Your task to perform on an android device: move a message to another label in the gmail app Image 0: 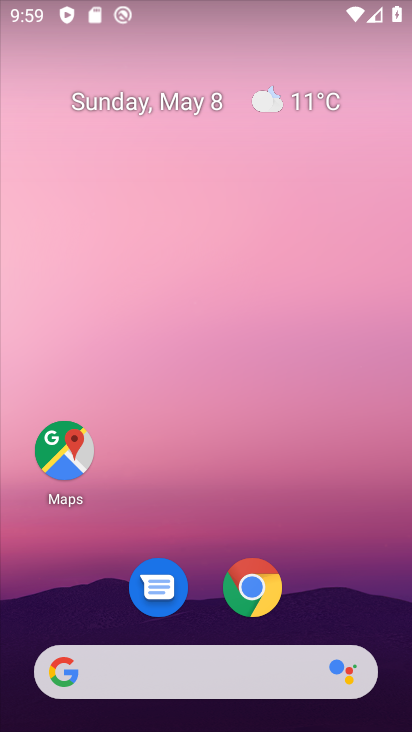
Step 0: drag from (178, 667) to (152, 186)
Your task to perform on an android device: move a message to another label in the gmail app Image 1: 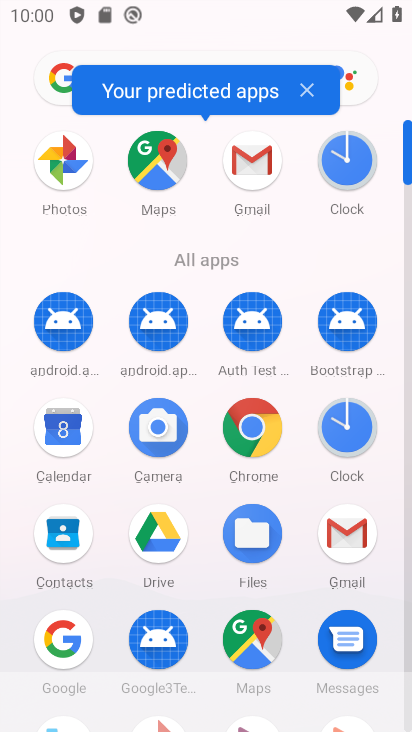
Step 1: click (238, 155)
Your task to perform on an android device: move a message to another label in the gmail app Image 2: 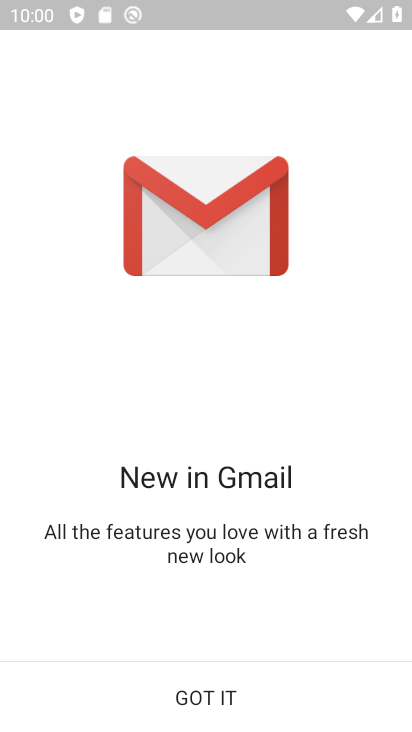
Step 2: click (170, 697)
Your task to perform on an android device: move a message to another label in the gmail app Image 3: 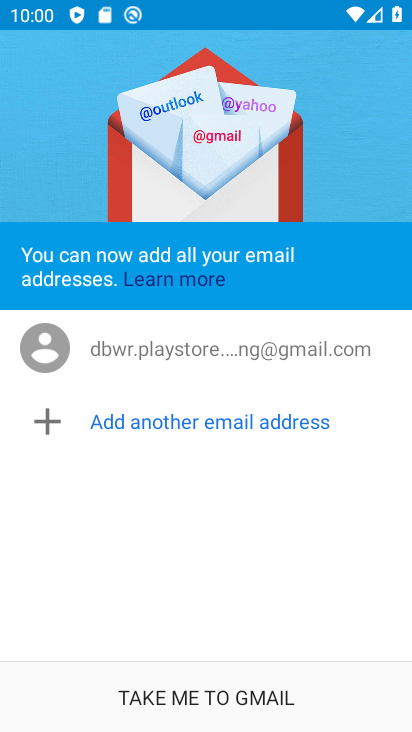
Step 3: click (170, 697)
Your task to perform on an android device: move a message to another label in the gmail app Image 4: 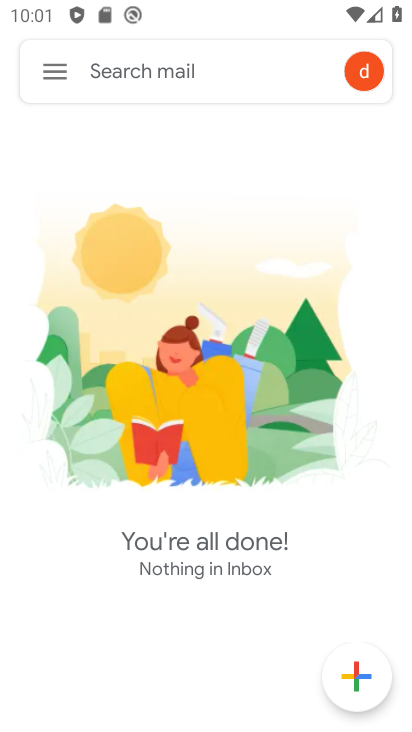
Step 4: click (61, 68)
Your task to perform on an android device: move a message to another label in the gmail app Image 5: 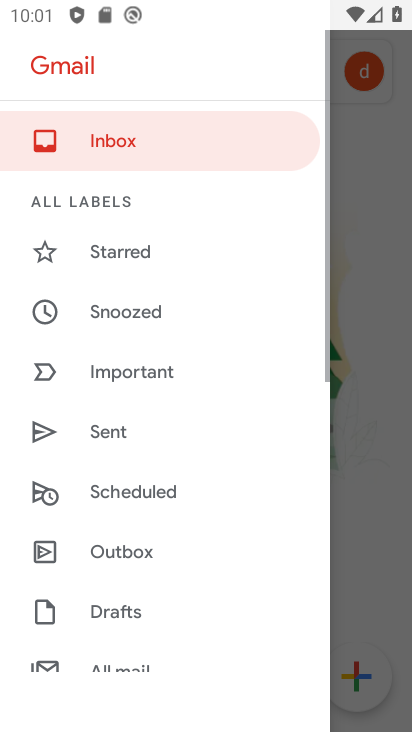
Step 5: drag from (155, 644) to (128, 360)
Your task to perform on an android device: move a message to another label in the gmail app Image 6: 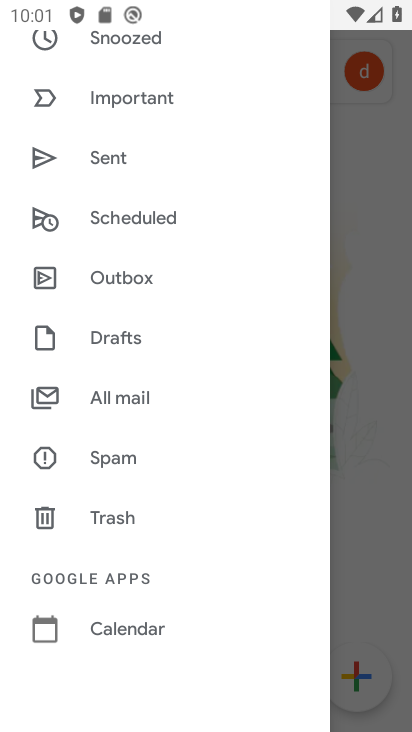
Step 6: click (114, 414)
Your task to perform on an android device: move a message to another label in the gmail app Image 7: 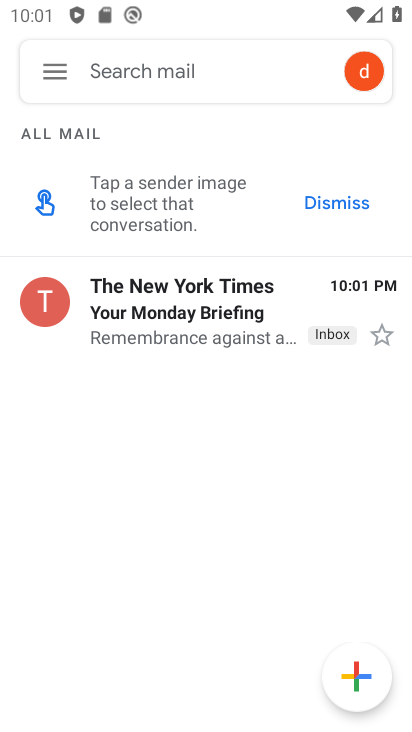
Step 7: click (47, 318)
Your task to perform on an android device: move a message to another label in the gmail app Image 8: 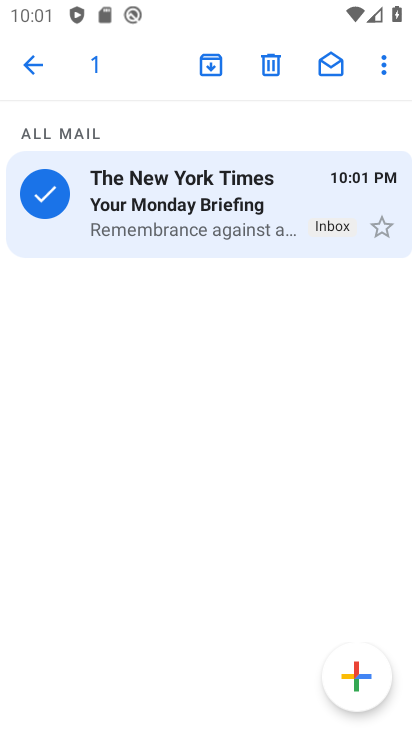
Step 8: click (377, 69)
Your task to perform on an android device: move a message to another label in the gmail app Image 9: 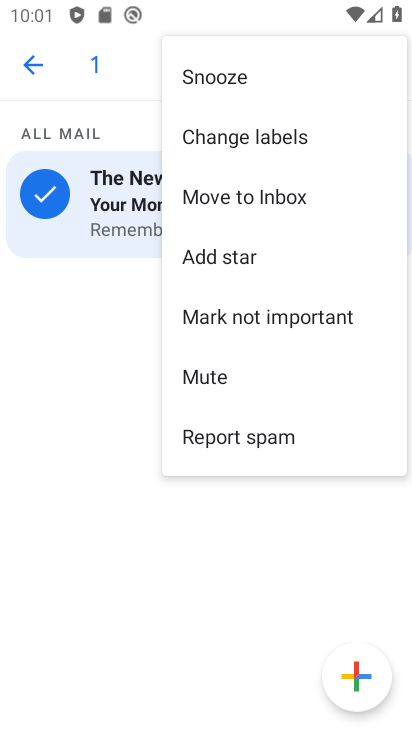
Step 9: click (272, 202)
Your task to perform on an android device: move a message to another label in the gmail app Image 10: 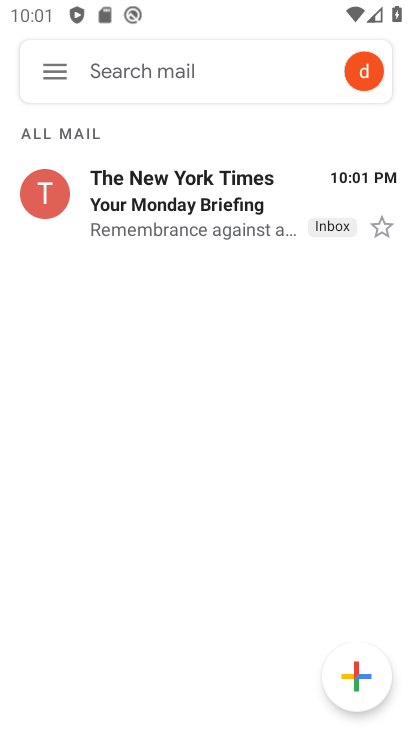
Step 10: task complete